Your task to perform on an android device: What is the news today? Image 0: 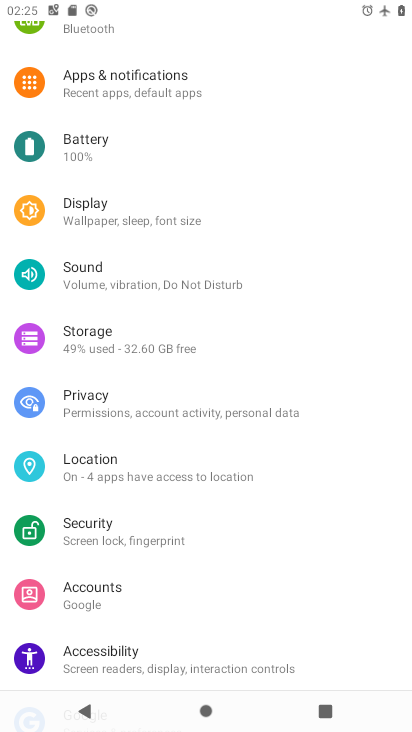
Step 0: press home button
Your task to perform on an android device: What is the news today? Image 1: 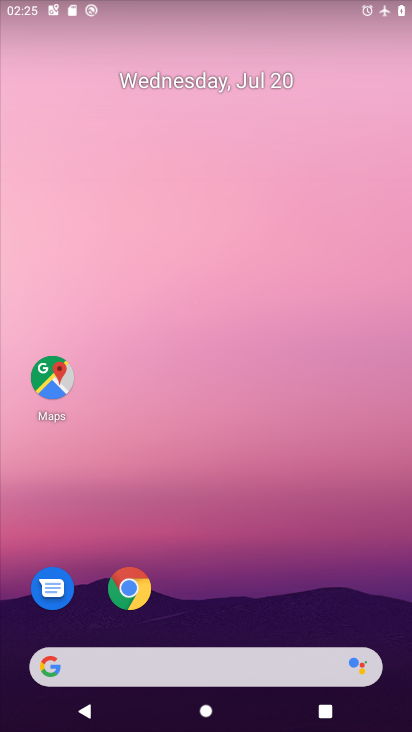
Step 1: click (131, 588)
Your task to perform on an android device: What is the news today? Image 2: 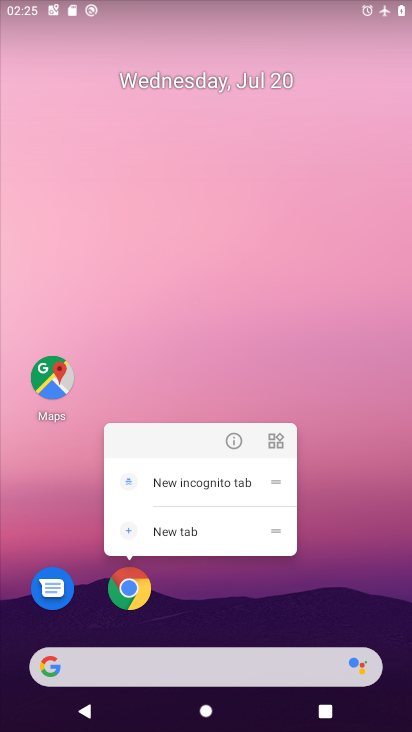
Step 2: click (123, 592)
Your task to perform on an android device: What is the news today? Image 3: 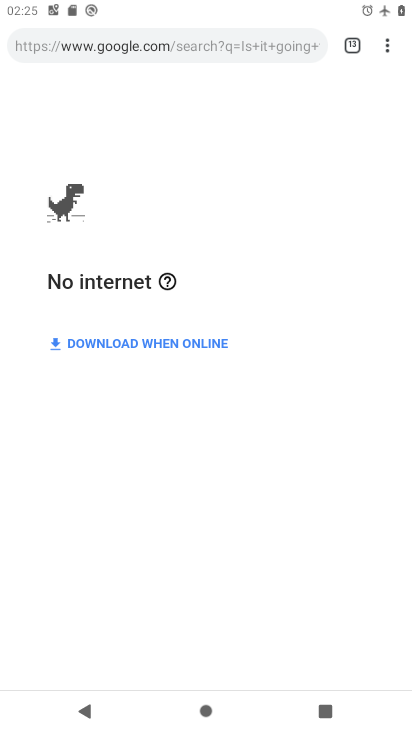
Step 3: click (125, 581)
Your task to perform on an android device: What is the news today? Image 4: 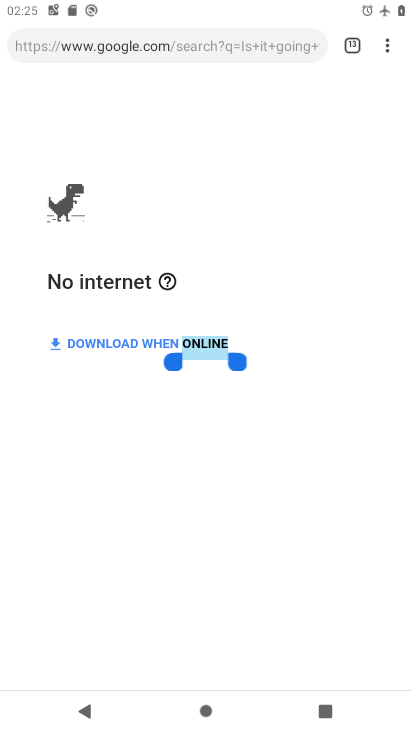
Step 4: click (387, 39)
Your task to perform on an android device: What is the news today? Image 5: 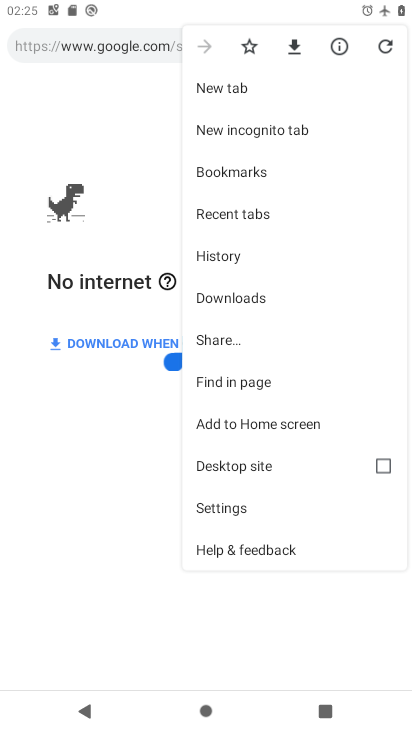
Step 5: click (229, 76)
Your task to perform on an android device: What is the news today? Image 6: 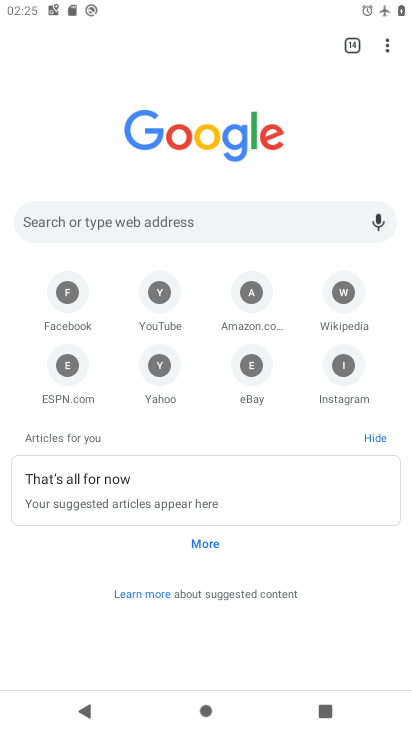
Step 6: click (237, 214)
Your task to perform on an android device: What is the news today? Image 7: 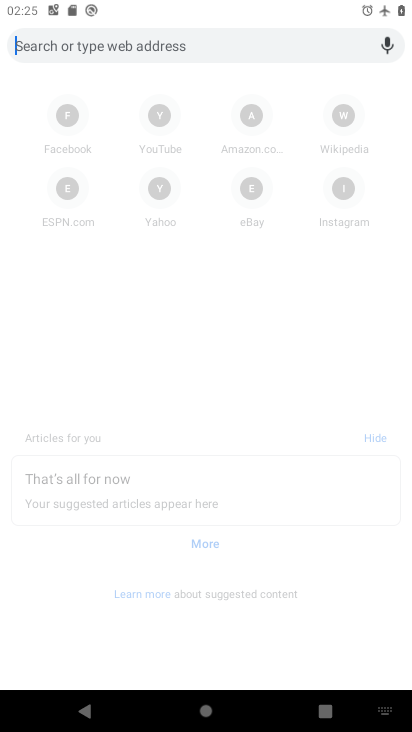
Step 7: type "What is the news today "
Your task to perform on an android device: What is the news today? Image 8: 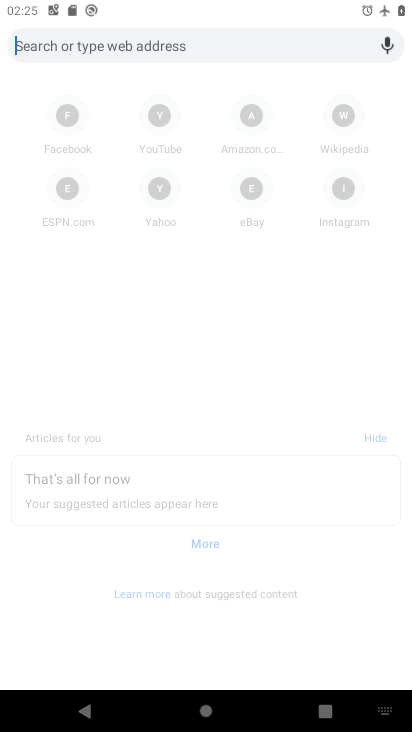
Step 8: click (226, 427)
Your task to perform on an android device: What is the news today? Image 9: 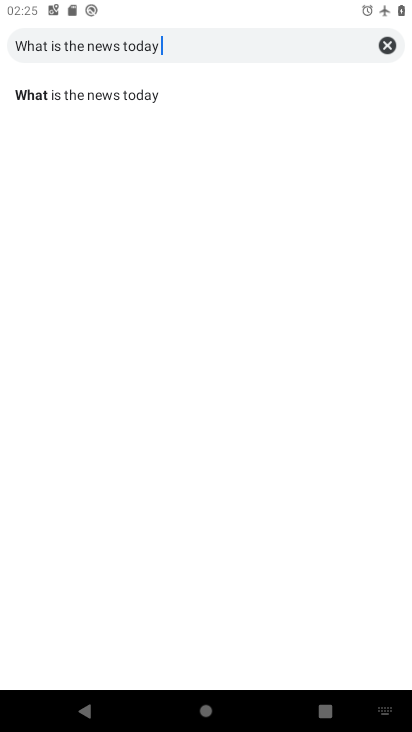
Step 9: click (158, 93)
Your task to perform on an android device: What is the news today? Image 10: 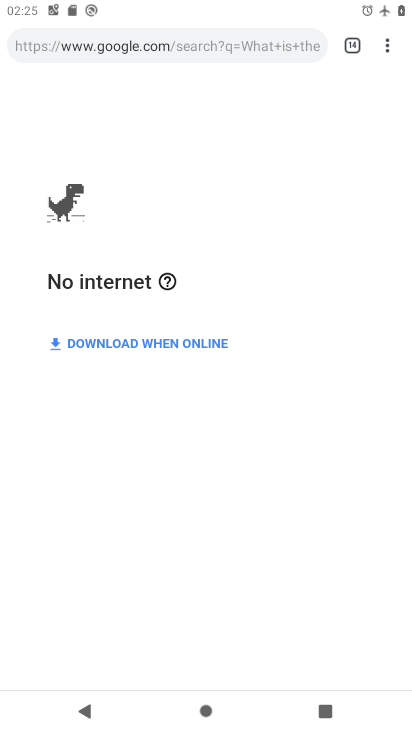
Step 10: task complete